Your task to perform on an android device: check google app version Image 0: 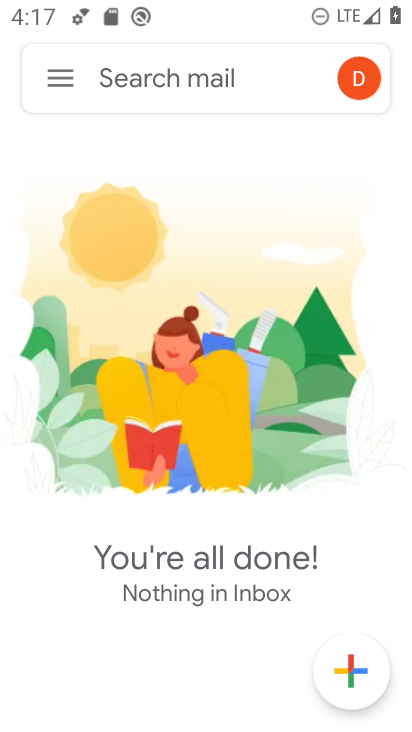
Step 0: press home button
Your task to perform on an android device: check google app version Image 1: 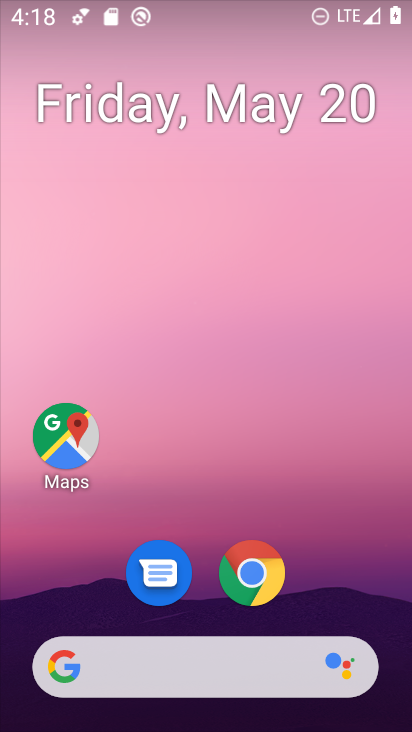
Step 1: drag from (351, 588) to (260, 199)
Your task to perform on an android device: check google app version Image 2: 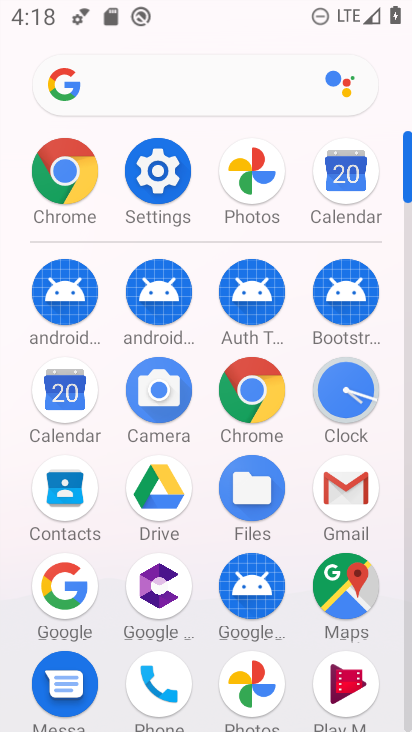
Step 2: click (76, 177)
Your task to perform on an android device: check google app version Image 3: 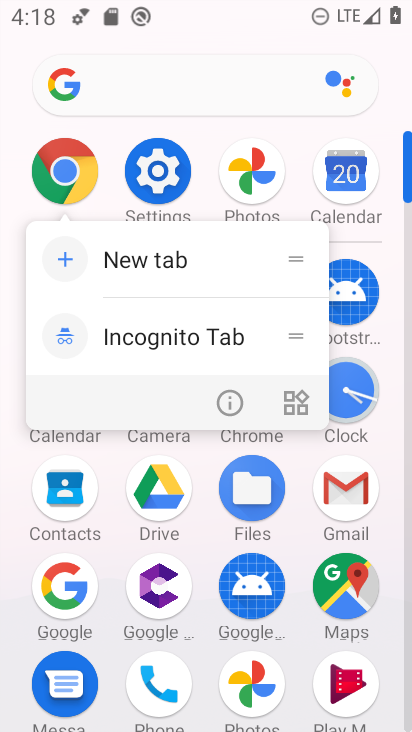
Step 3: click (237, 411)
Your task to perform on an android device: check google app version Image 4: 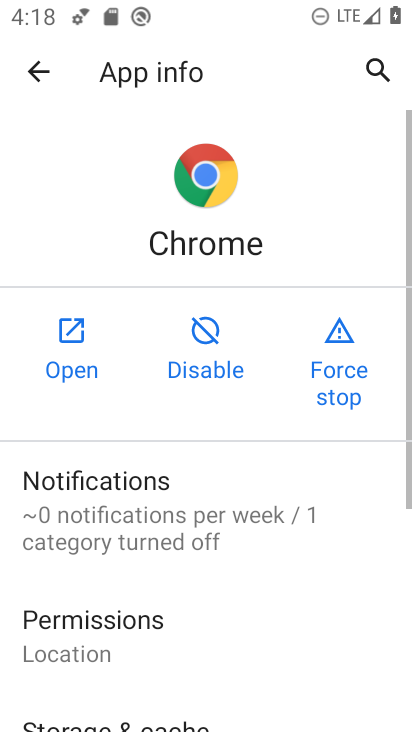
Step 4: drag from (299, 695) to (259, 148)
Your task to perform on an android device: check google app version Image 5: 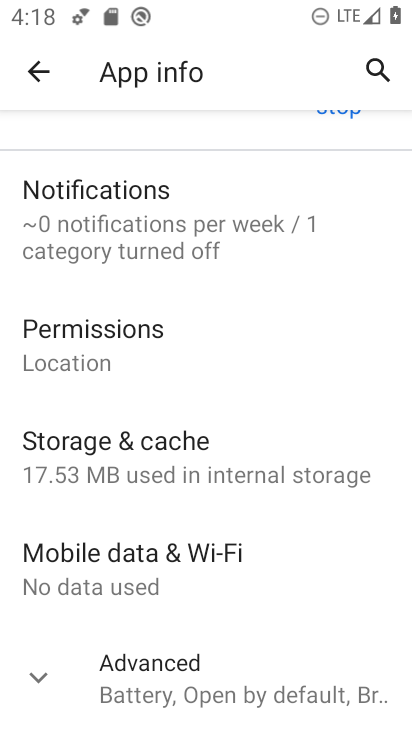
Step 5: drag from (310, 602) to (229, 169)
Your task to perform on an android device: check google app version Image 6: 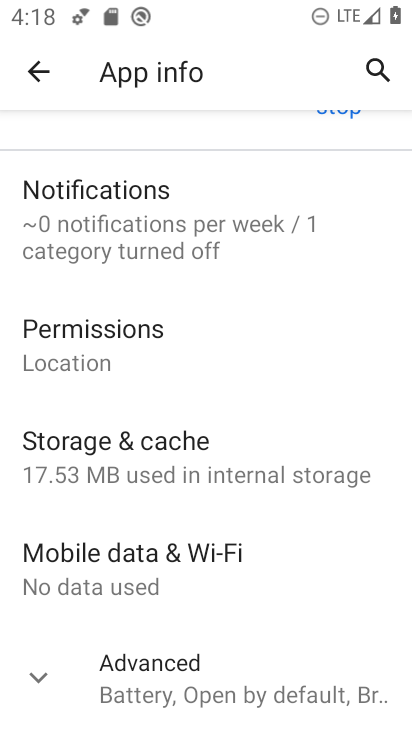
Step 6: click (275, 693)
Your task to perform on an android device: check google app version Image 7: 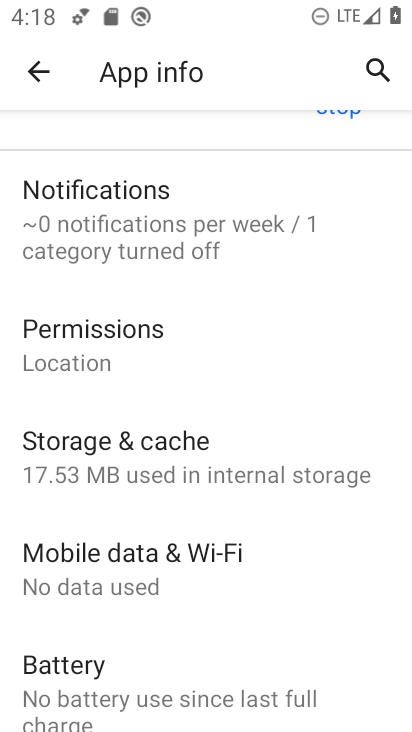
Step 7: task complete